Your task to perform on an android device: Open network settings Image 0: 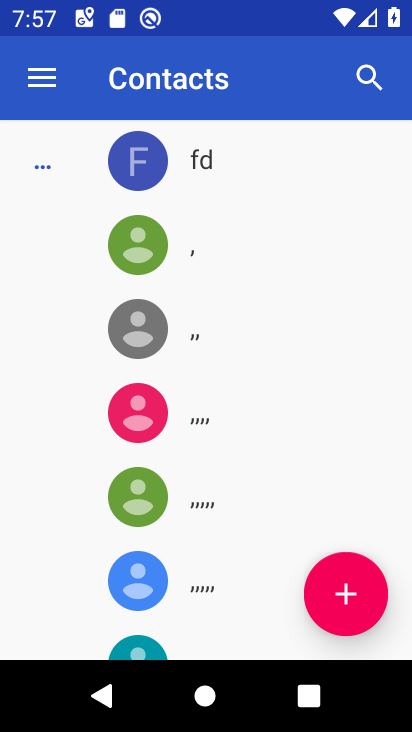
Step 0: press back button
Your task to perform on an android device: Open network settings Image 1: 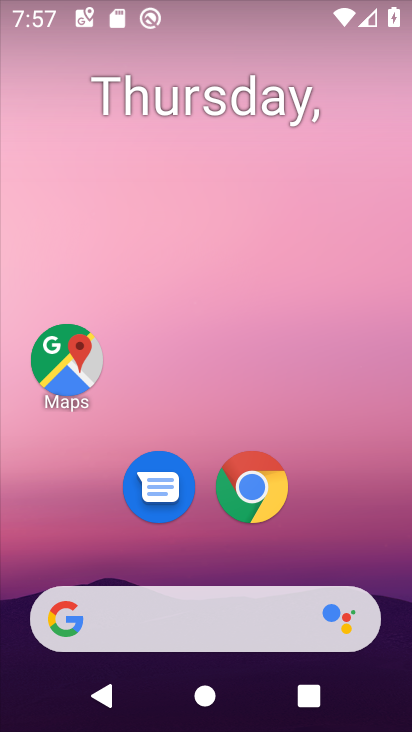
Step 1: drag from (221, 552) to (208, 60)
Your task to perform on an android device: Open network settings Image 2: 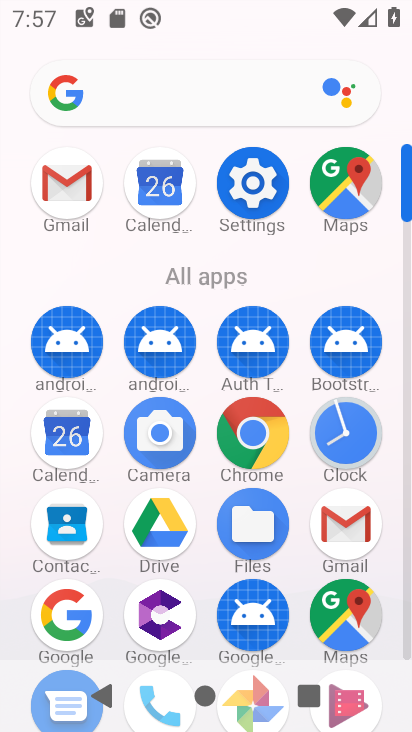
Step 2: click (248, 179)
Your task to perform on an android device: Open network settings Image 3: 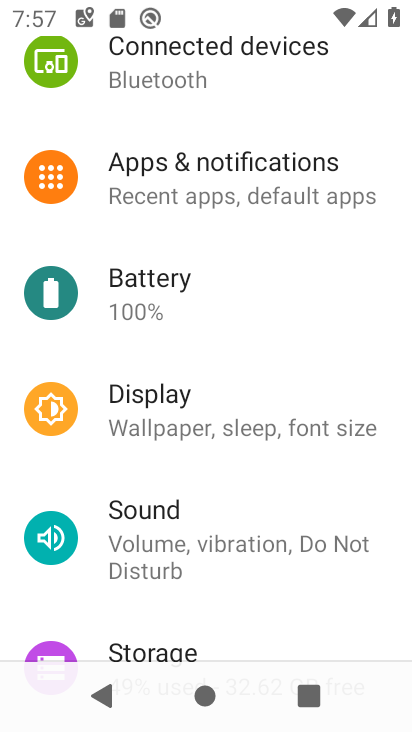
Step 3: drag from (267, 170) to (228, 572)
Your task to perform on an android device: Open network settings Image 4: 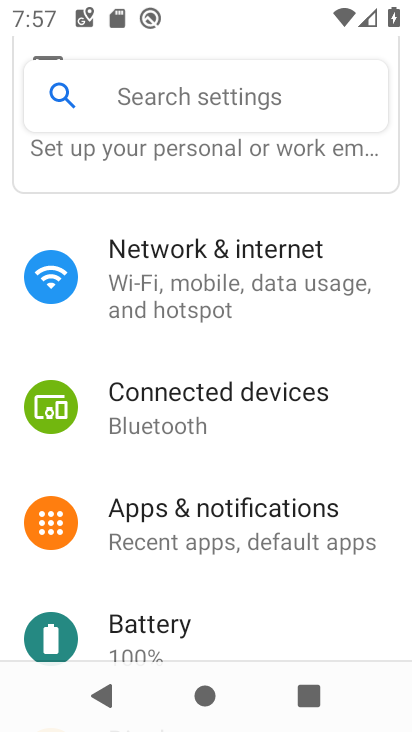
Step 4: click (251, 267)
Your task to perform on an android device: Open network settings Image 5: 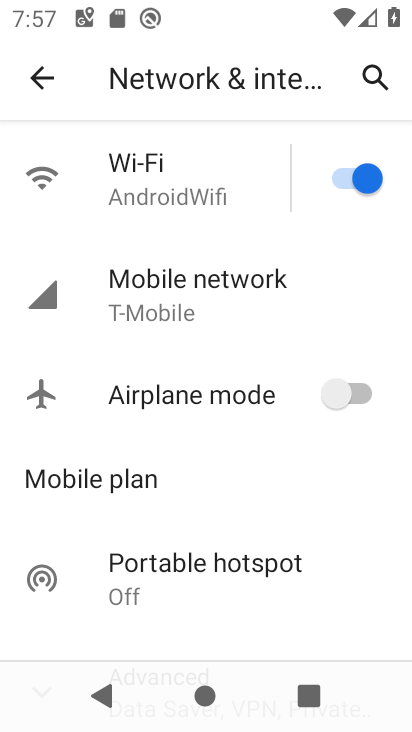
Step 5: task complete